Your task to perform on an android device: turn on javascript in the chrome app Image 0: 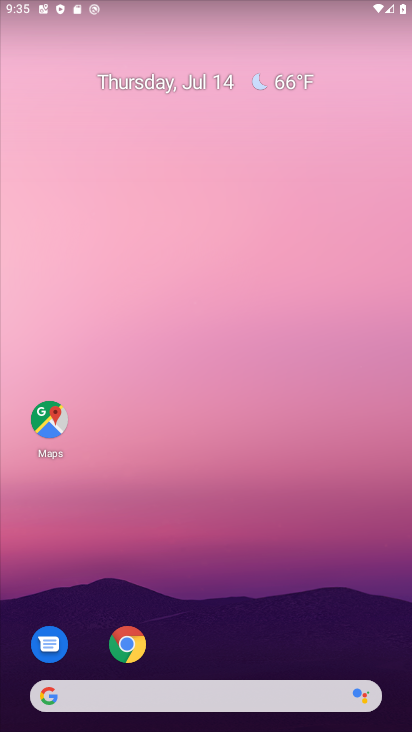
Step 0: drag from (219, 230) to (217, 119)
Your task to perform on an android device: turn on javascript in the chrome app Image 1: 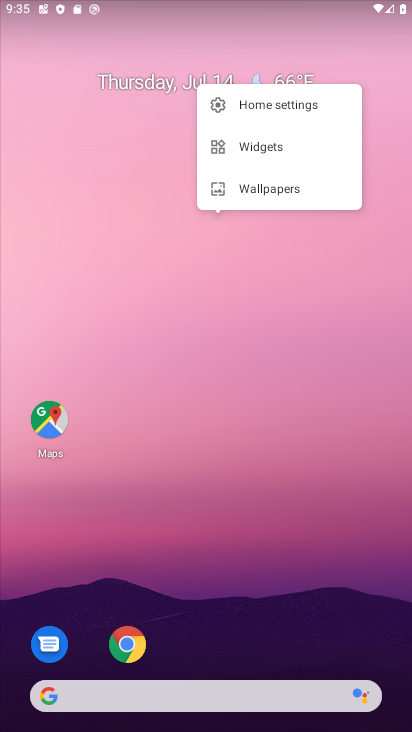
Step 1: drag from (262, 672) to (225, 87)
Your task to perform on an android device: turn on javascript in the chrome app Image 2: 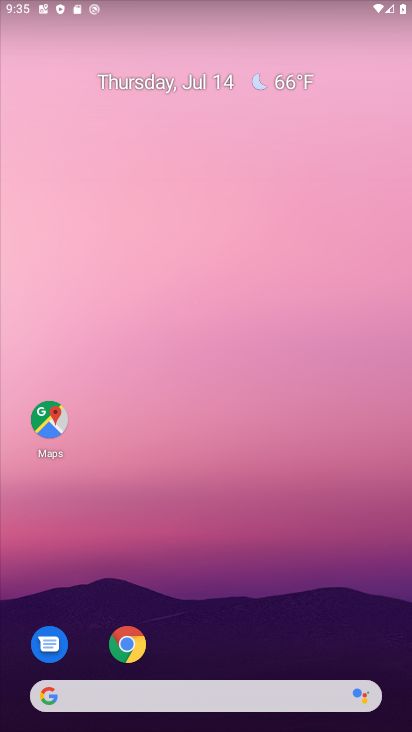
Step 2: drag from (216, 376) to (178, 67)
Your task to perform on an android device: turn on javascript in the chrome app Image 3: 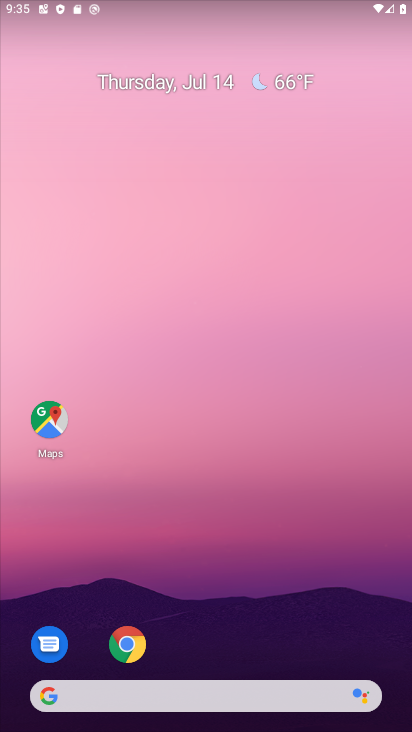
Step 3: drag from (146, 656) to (116, 52)
Your task to perform on an android device: turn on javascript in the chrome app Image 4: 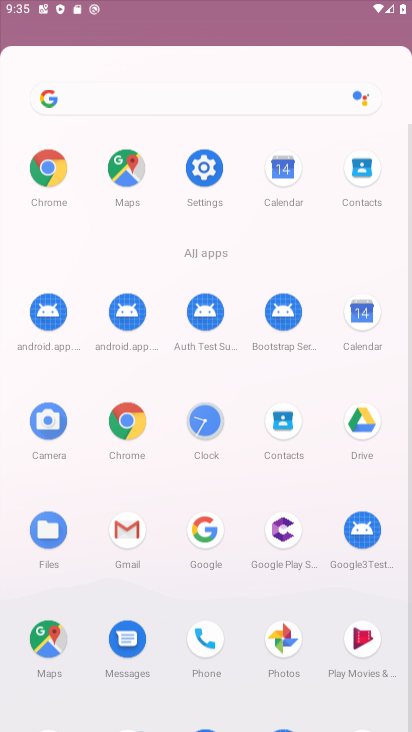
Step 4: drag from (223, 391) to (187, 35)
Your task to perform on an android device: turn on javascript in the chrome app Image 5: 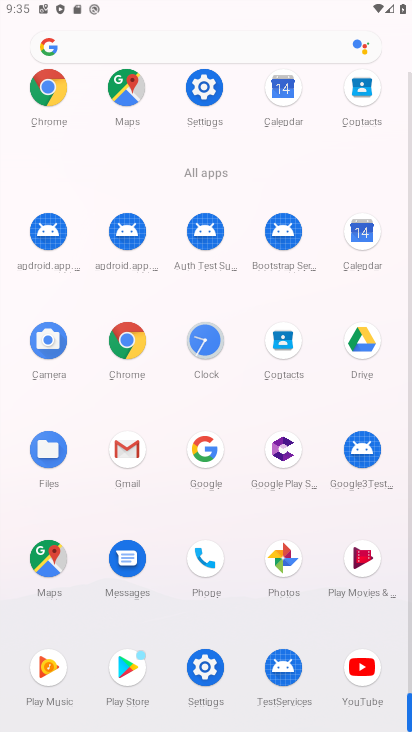
Step 5: click (134, 337)
Your task to perform on an android device: turn on javascript in the chrome app Image 6: 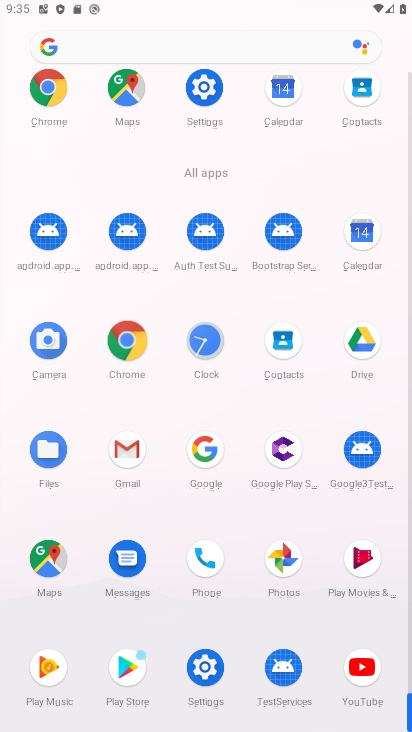
Step 6: click (132, 337)
Your task to perform on an android device: turn on javascript in the chrome app Image 7: 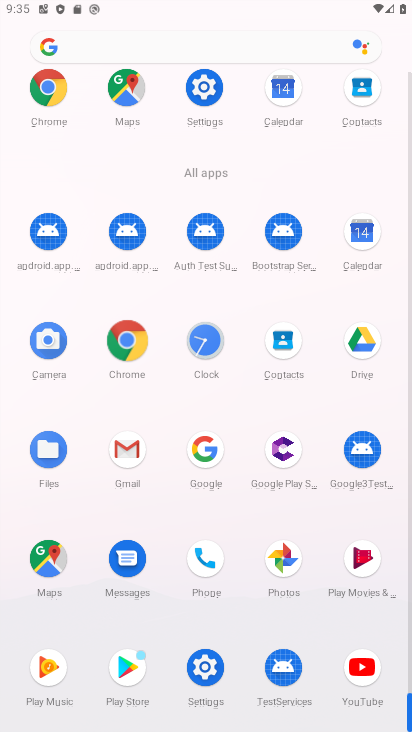
Step 7: click (132, 337)
Your task to perform on an android device: turn on javascript in the chrome app Image 8: 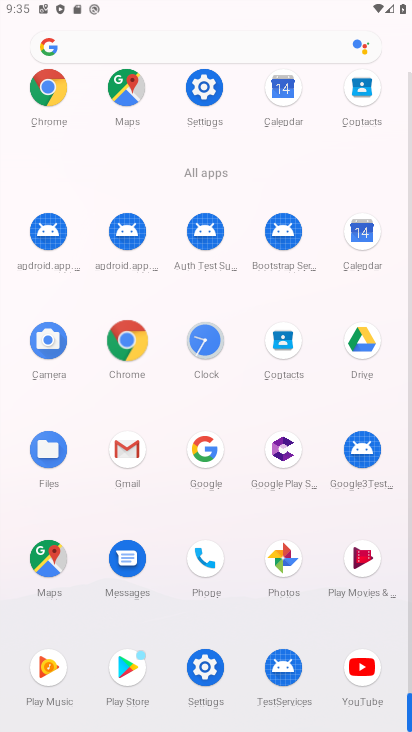
Step 8: click (130, 334)
Your task to perform on an android device: turn on javascript in the chrome app Image 9: 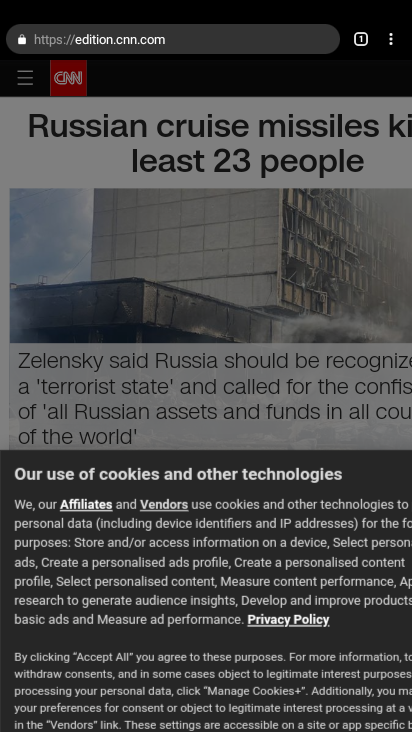
Step 9: click (129, 333)
Your task to perform on an android device: turn on javascript in the chrome app Image 10: 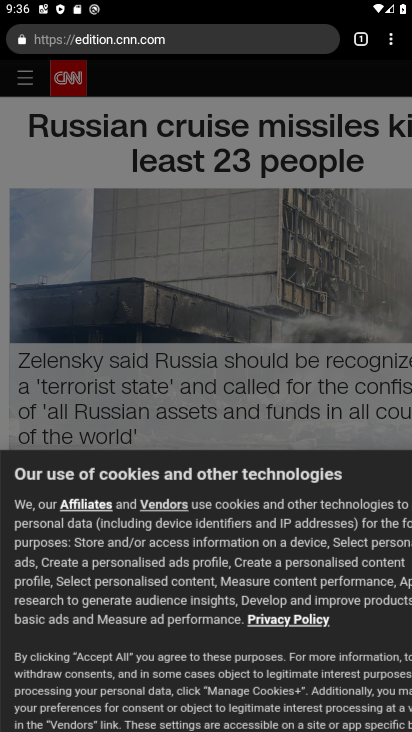
Step 10: drag from (385, 42) to (247, 477)
Your task to perform on an android device: turn on javascript in the chrome app Image 11: 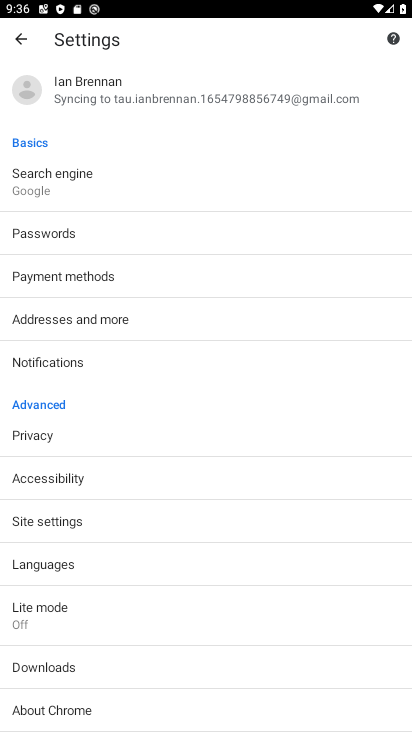
Step 11: click (43, 518)
Your task to perform on an android device: turn on javascript in the chrome app Image 12: 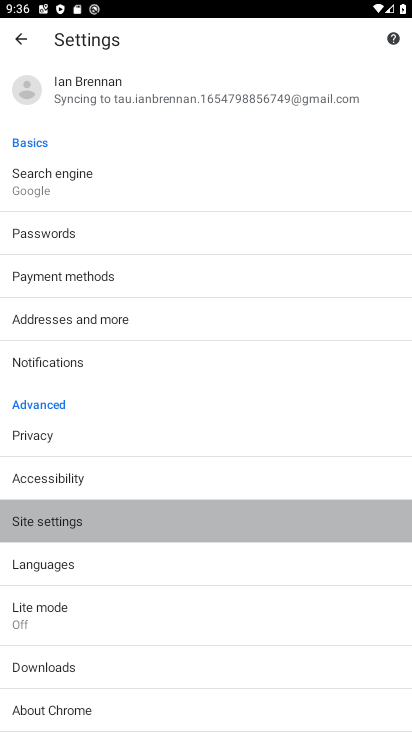
Step 12: click (43, 518)
Your task to perform on an android device: turn on javascript in the chrome app Image 13: 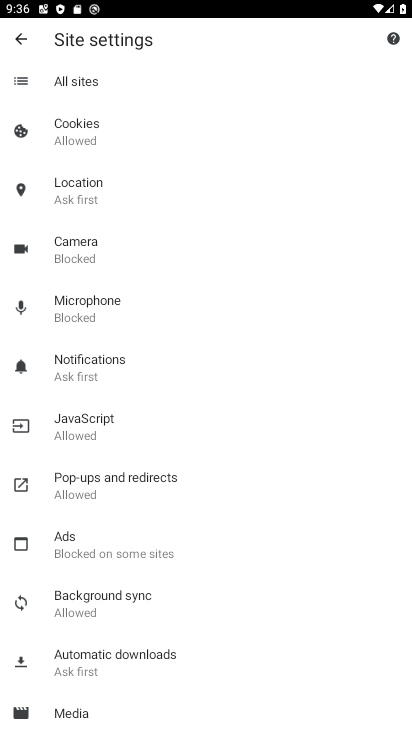
Step 13: click (74, 431)
Your task to perform on an android device: turn on javascript in the chrome app Image 14: 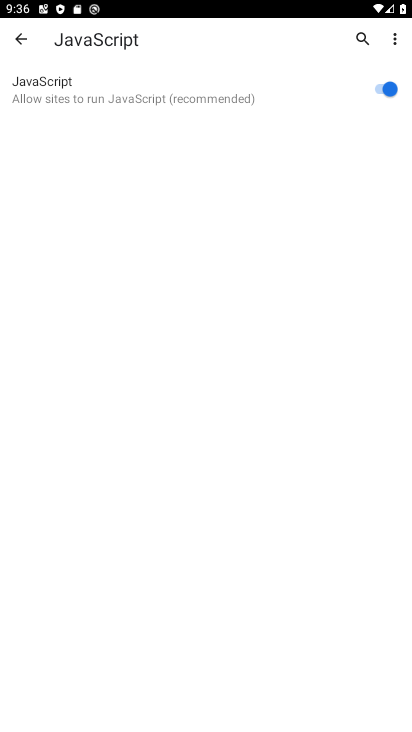
Step 14: task complete